Your task to perform on an android device: Search for "jbl charge 4" on costco.com, select the first entry, and add it to the cart. Image 0: 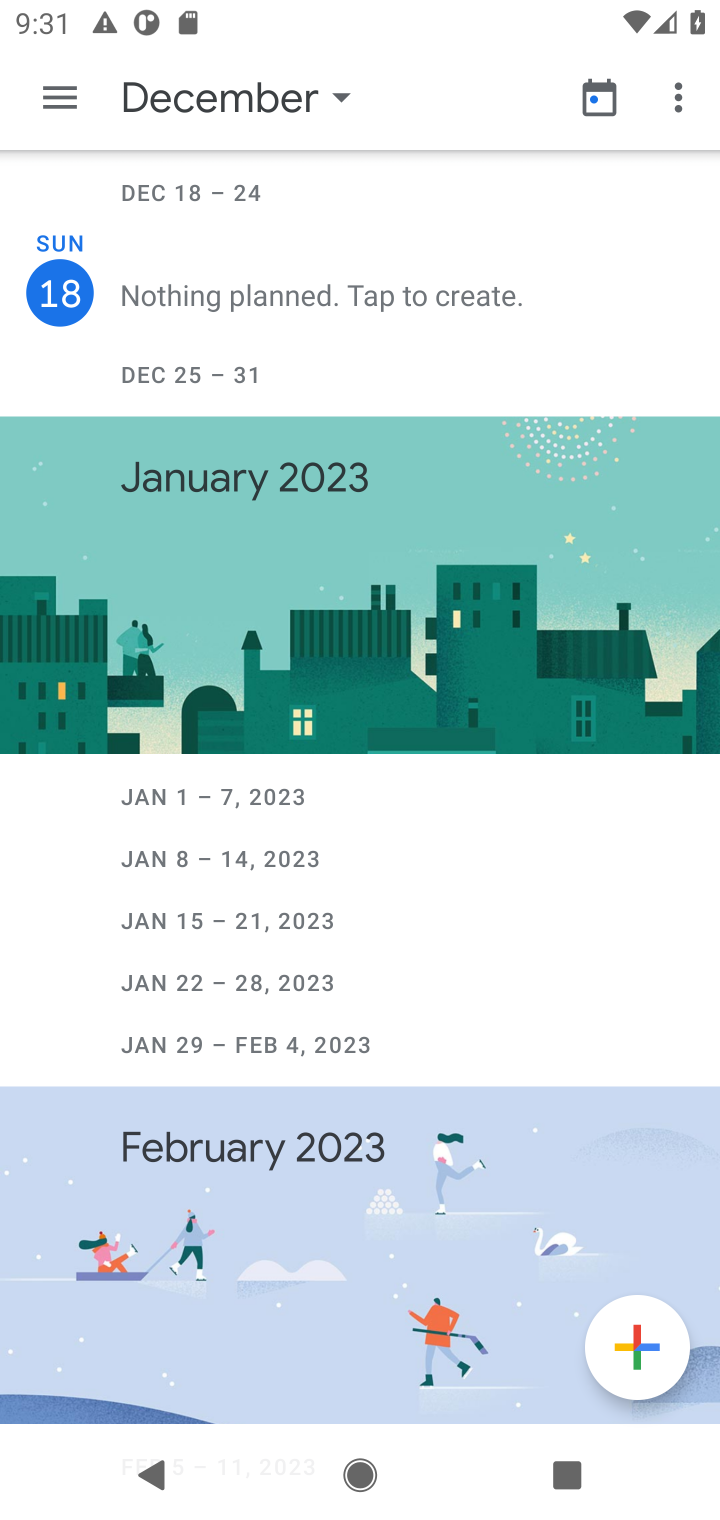
Step 0: press home button
Your task to perform on an android device: Search for "jbl charge 4" on costco.com, select the first entry, and add it to the cart. Image 1: 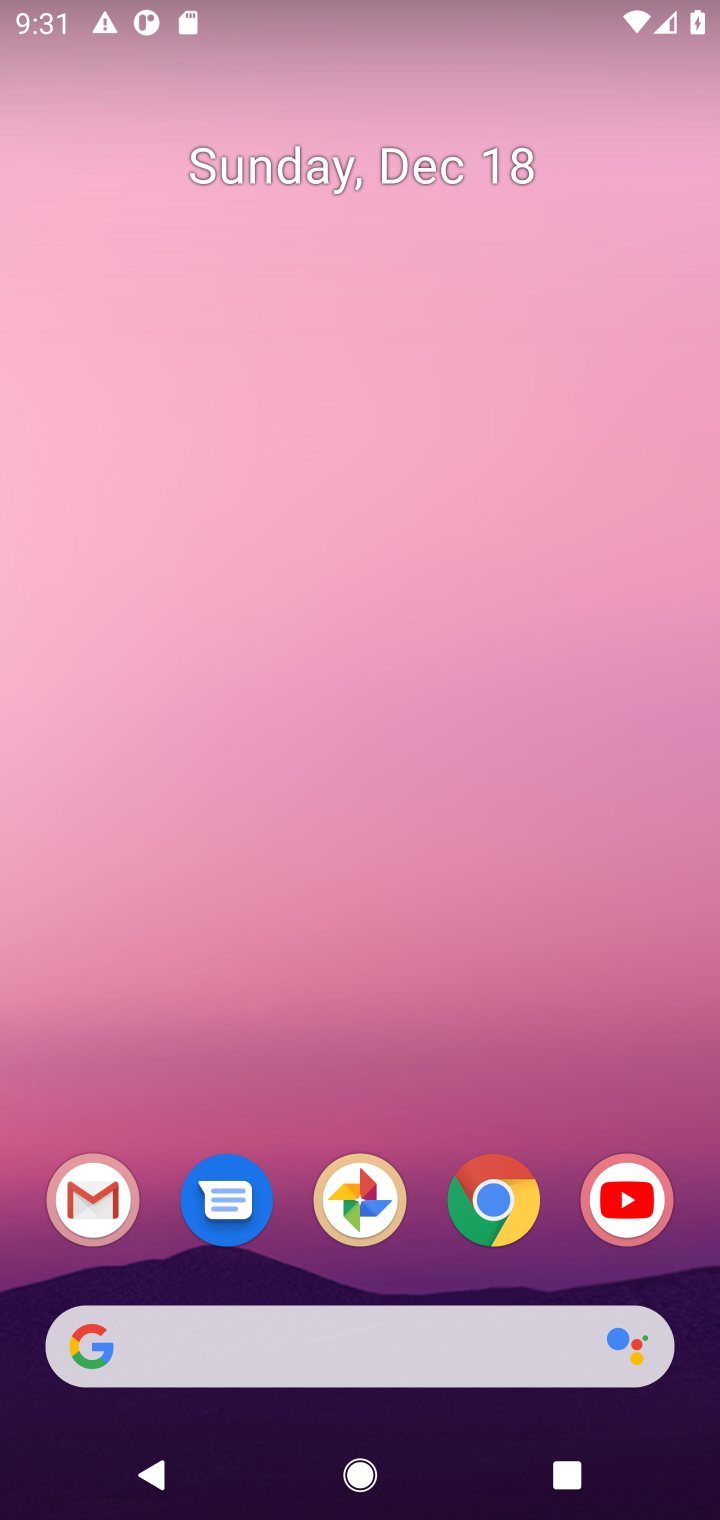
Step 1: click (496, 1206)
Your task to perform on an android device: Search for "jbl charge 4" on costco.com, select the first entry, and add it to the cart. Image 2: 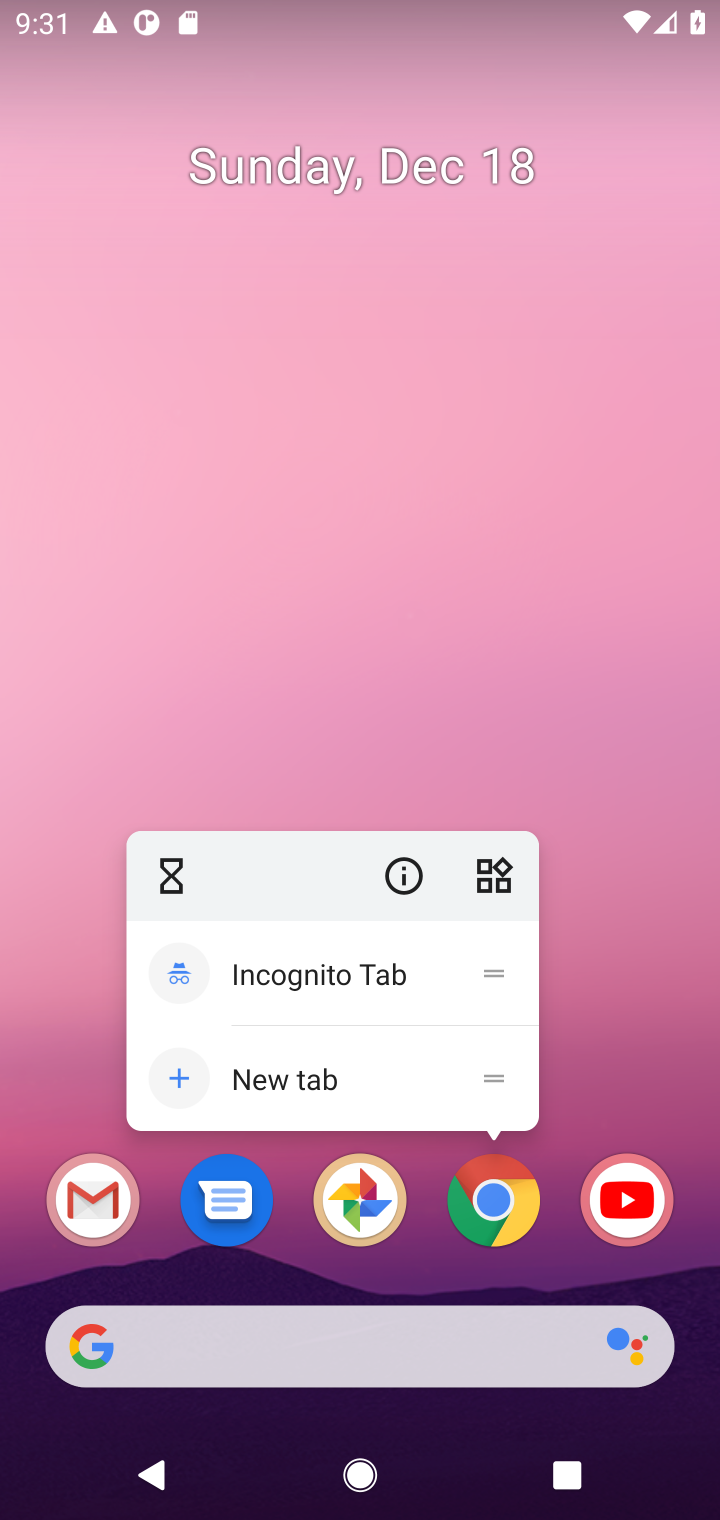
Step 2: click (496, 1206)
Your task to perform on an android device: Search for "jbl charge 4" on costco.com, select the first entry, and add it to the cart. Image 3: 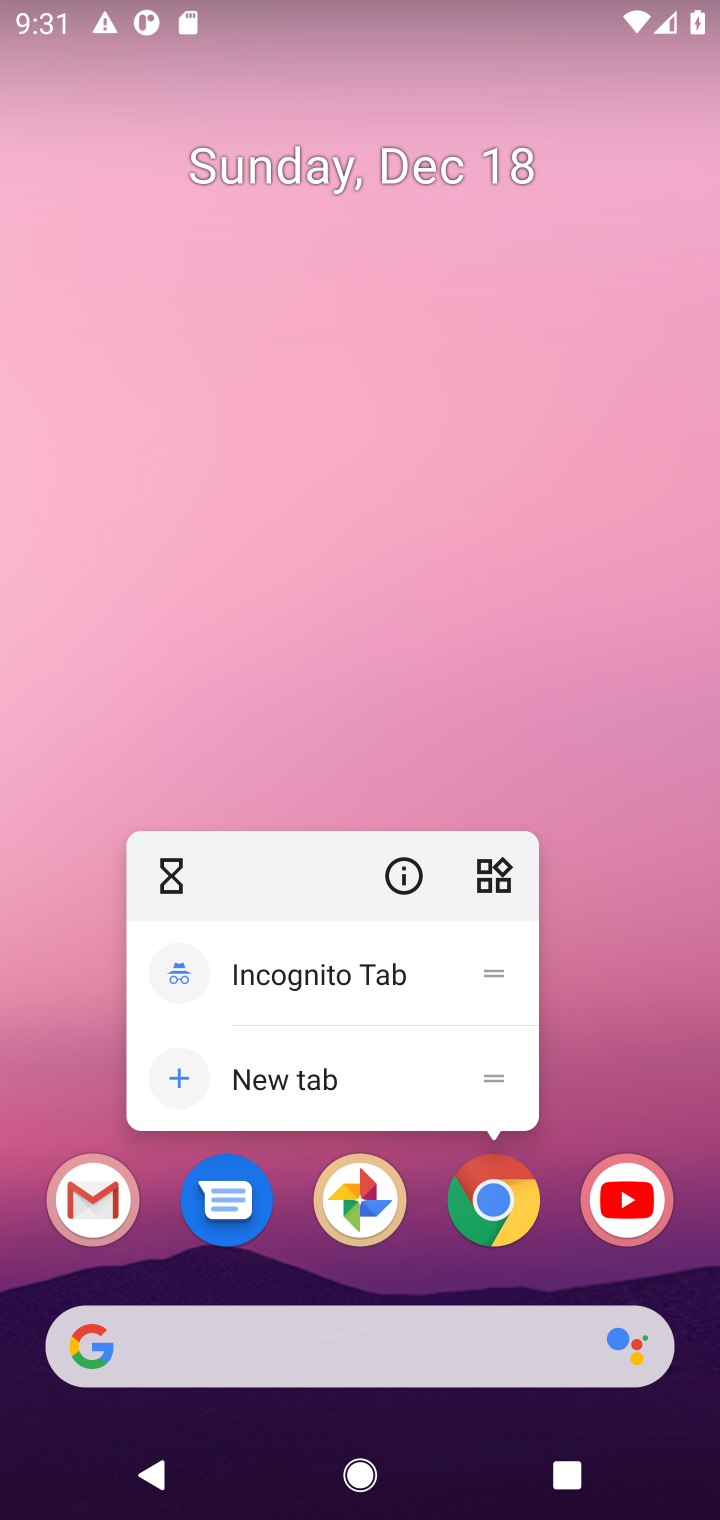
Step 3: click (496, 1206)
Your task to perform on an android device: Search for "jbl charge 4" on costco.com, select the first entry, and add it to the cart. Image 4: 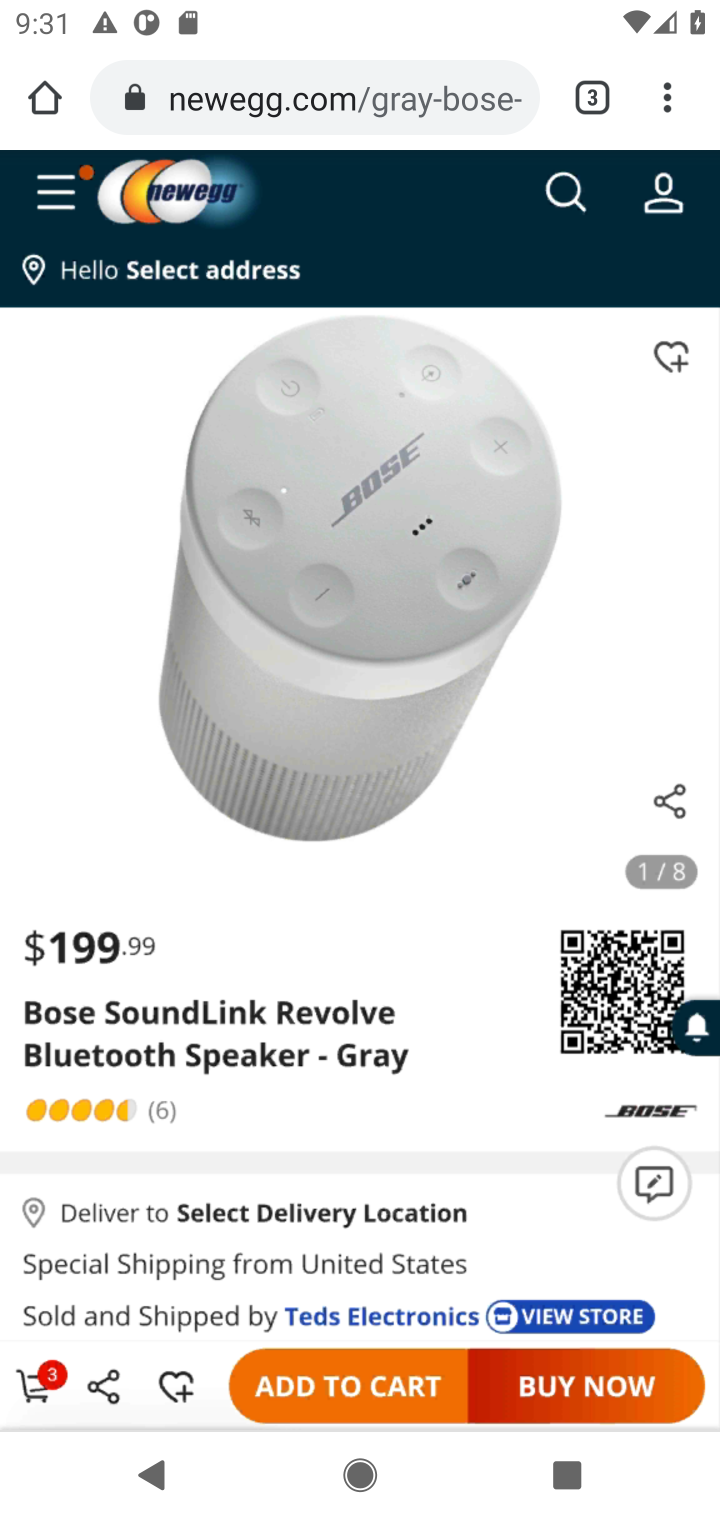
Step 4: click (288, 98)
Your task to perform on an android device: Search for "jbl charge 4" on costco.com, select the first entry, and add it to the cart. Image 5: 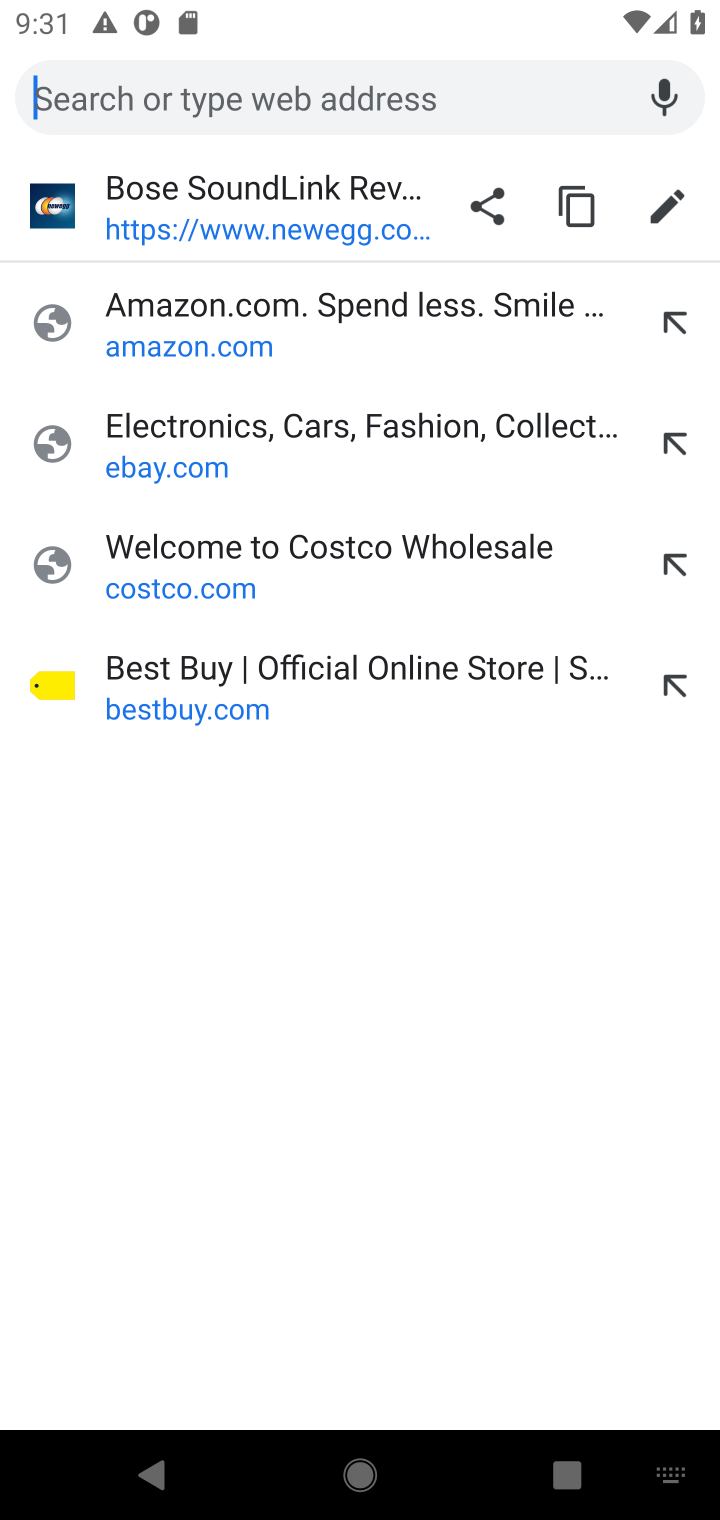
Step 5: click (192, 574)
Your task to perform on an android device: Search for "jbl charge 4" on costco.com, select the first entry, and add it to the cart. Image 6: 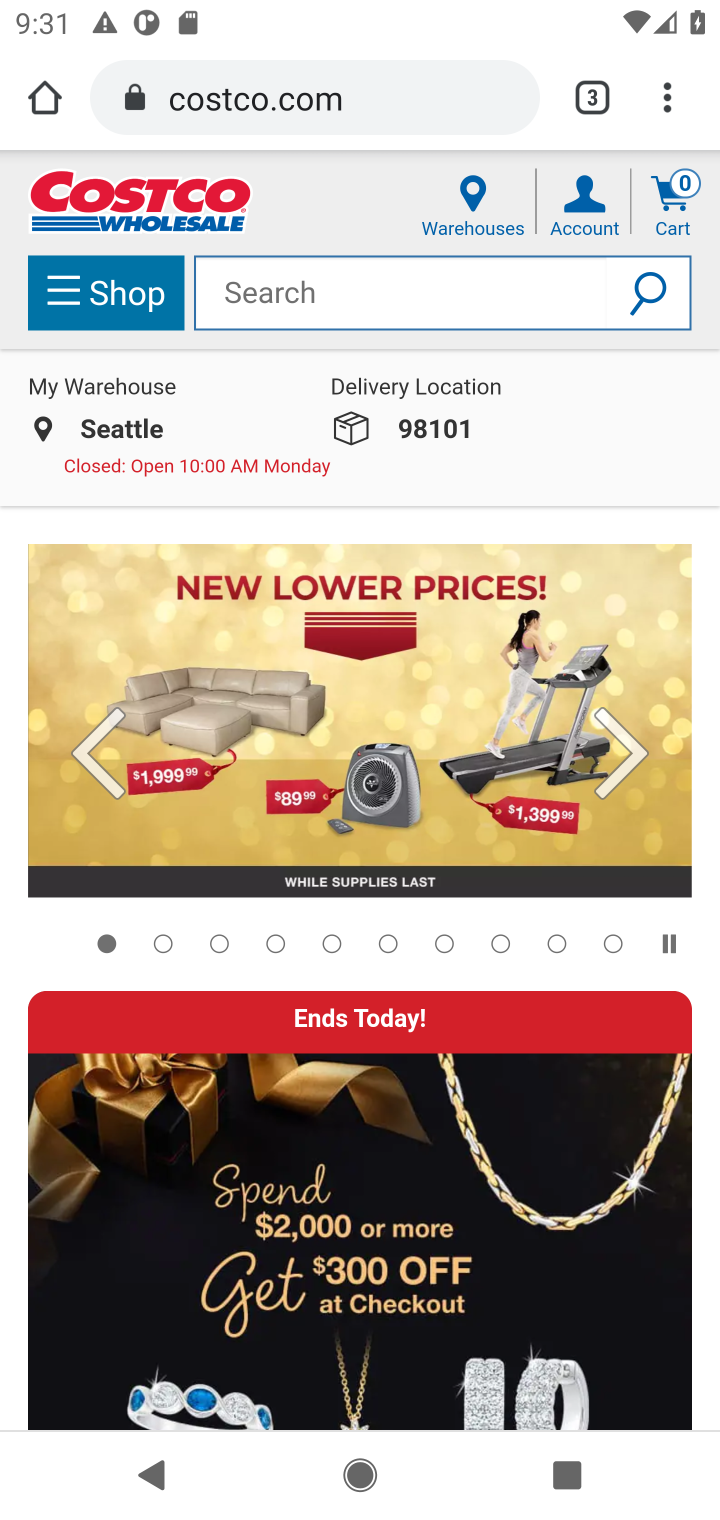
Step 6: click (235, 297)
Your task to perform on an android device: Search for "jbl charge 4" on costco.com, select the first entry, and add it to the cart. Image 7: 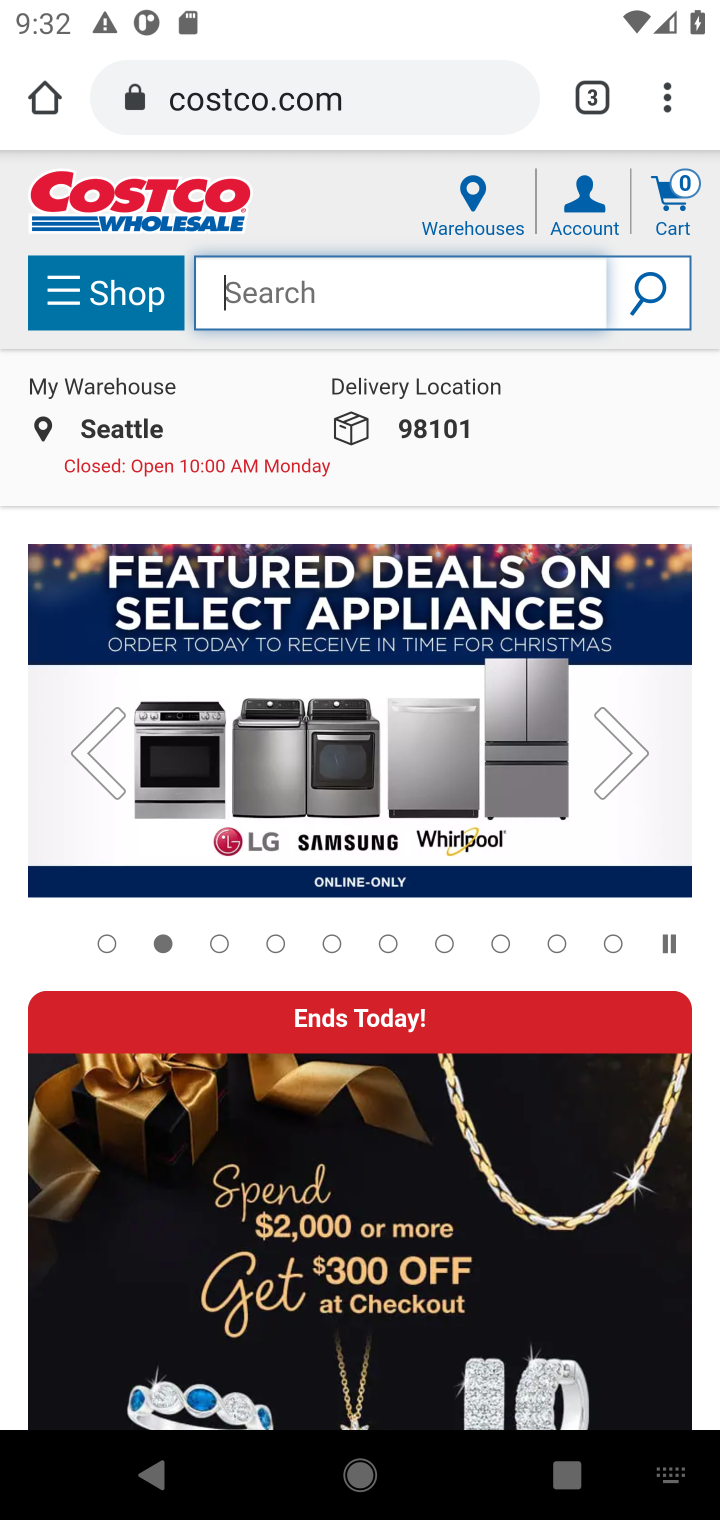
Step 7: type "jbl charge 4"
Your task to perform on an android device: Search for "jbl charge 4" on costco.com, select the first entry, and add it to the cart. Image 8: 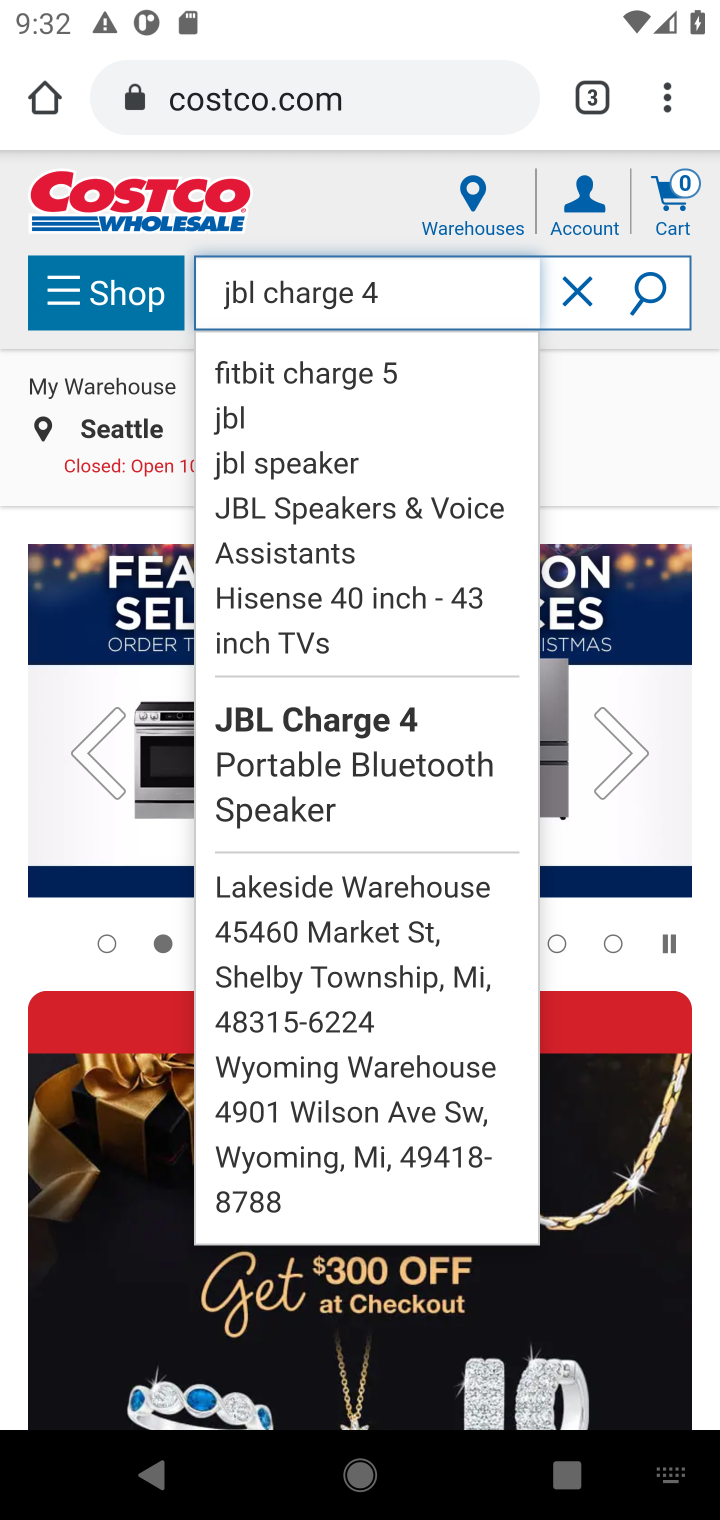
Step 8: click (660, 301)
Your task to perform on an android device: Search for "jbl charge 4" on costco.com, select the first entry, and add it to the cart. Image 9: 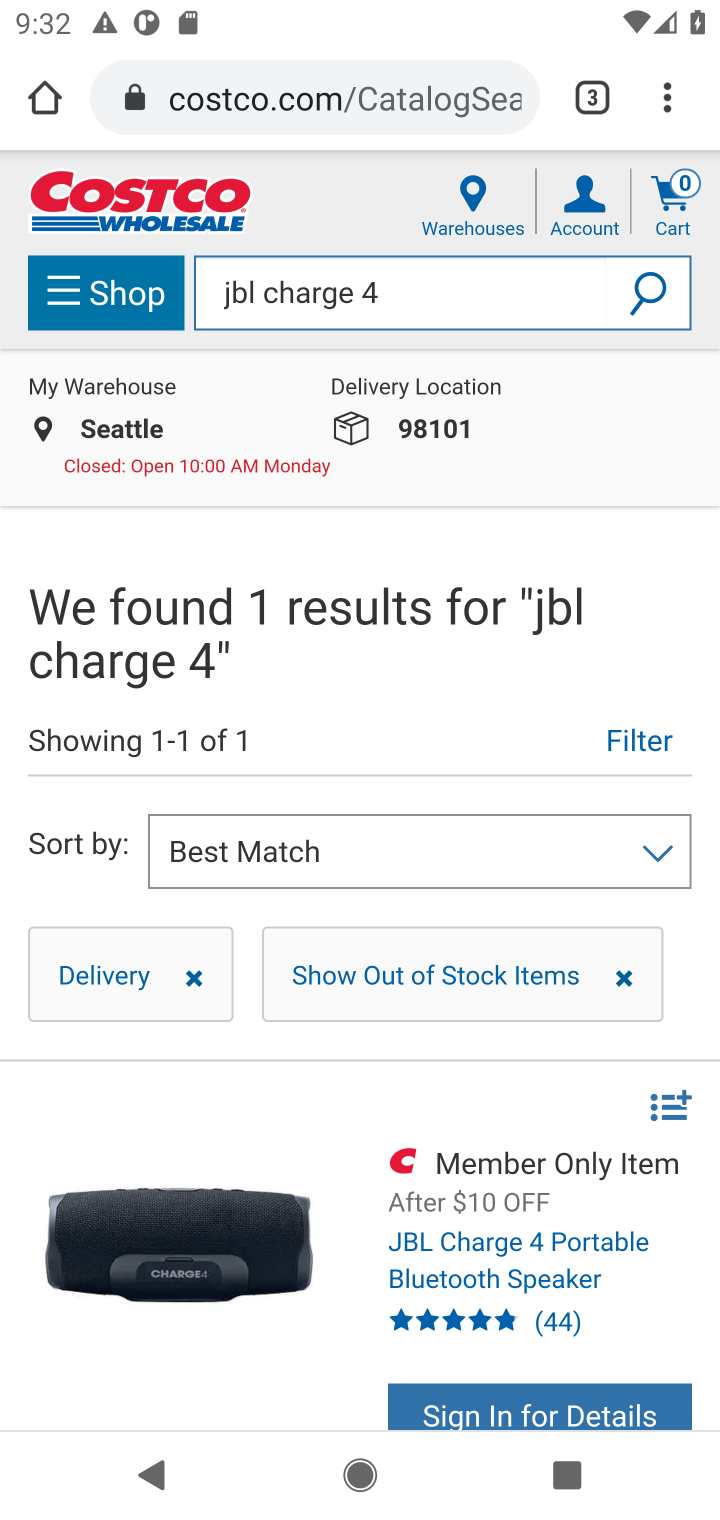
Step 9: task complete